Your task to perform on an android device: Open Youtube and go to the subscriptions tab Image 0: 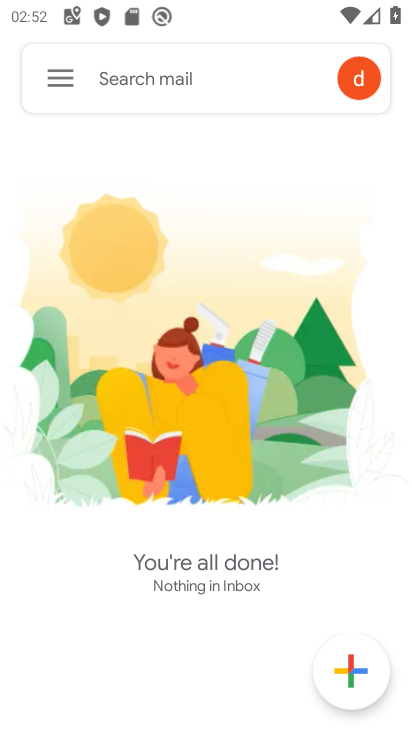
Step 0: press home button
Your task to perform on an android device: Open Youtube and go to the subscriptions tab Image 1: 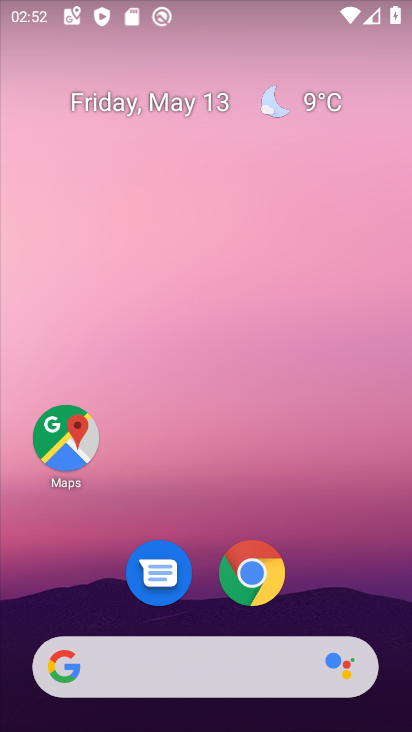
Step 1: drag from (341, 558) to (281, 40)
Your task to perform on an android device: Open Youtube and go to the subscriptions tab Image 2: 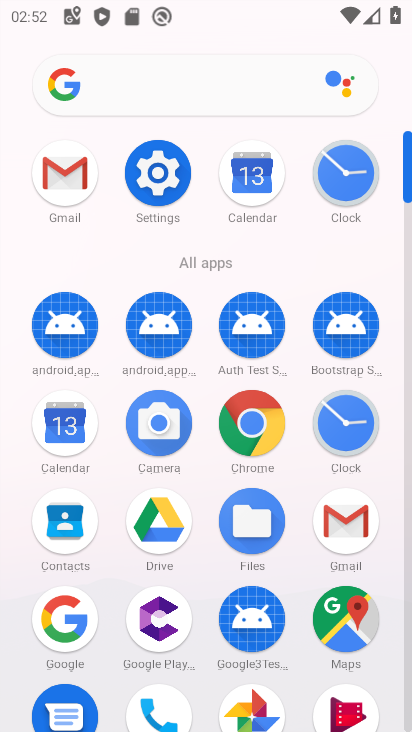
Step 2: drag from (296, 455) to (286, 206)
Your task to perform on an android device: Open Youtube and go to the subscriptions tab Image 3: 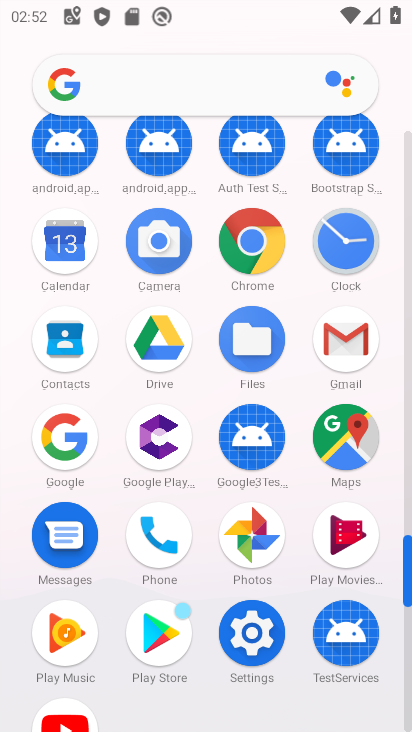
Step 3: drag from (300, 536) to (298, 227)
Your task to perform on an android device: Open Youtube and go to the subscriptions tab Image 4: 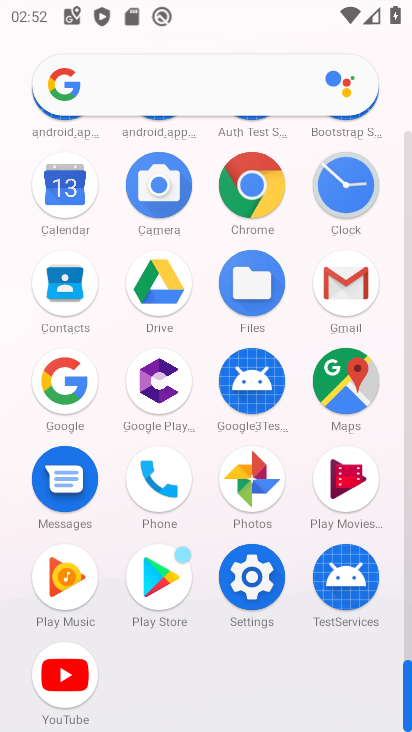
Step 4: click (62, 678)
Your task to perform on an android device: Open Youtube and go to the subscriptions tab Image 5: 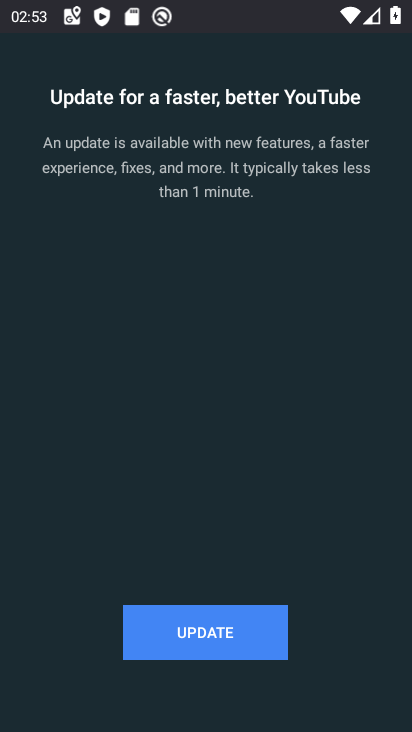
Step 5: click (180, 625)
Your task to perform on an android device: Open Youtube and go to the subscriptions tab Image 6: 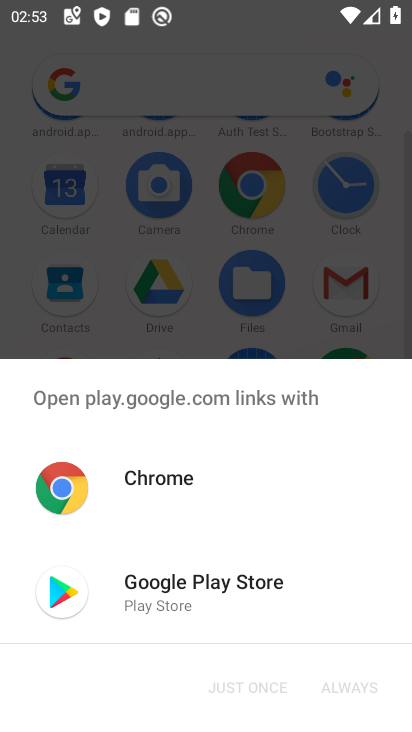
Step 6: click (151, 583)
Your task to perform on an android device: Open Youtube and go to the subscriptions tab Image 7: 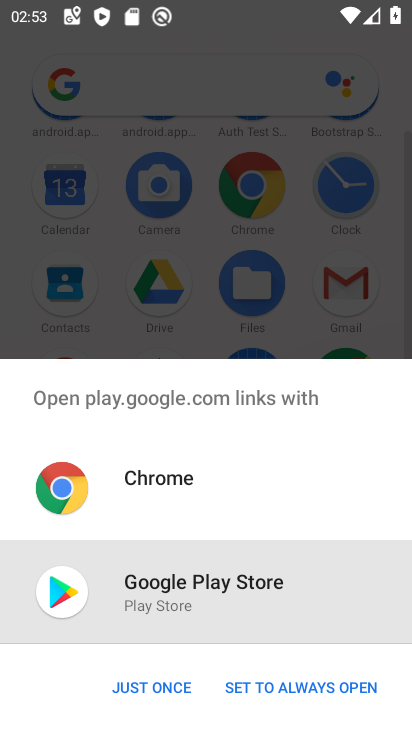
Step 7: click (175, 683)
Your task to perform on an android device: Open Youtube and go to the subscriptions tab Image 8: 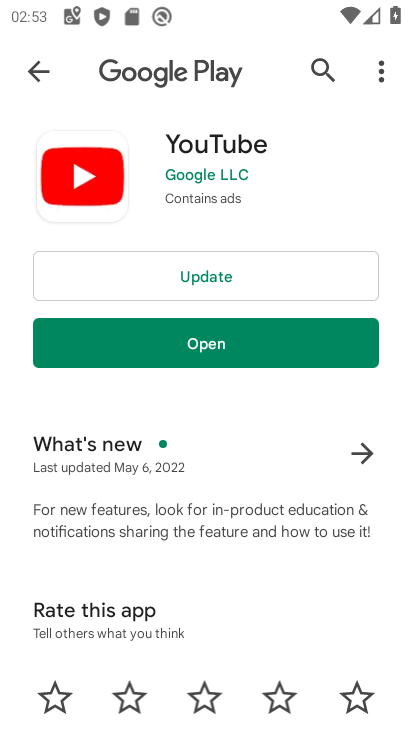
Step 8: click (218, 276)
Your task to perform on an android device: Open Youtube and go to the subscriptions tab Image 9: 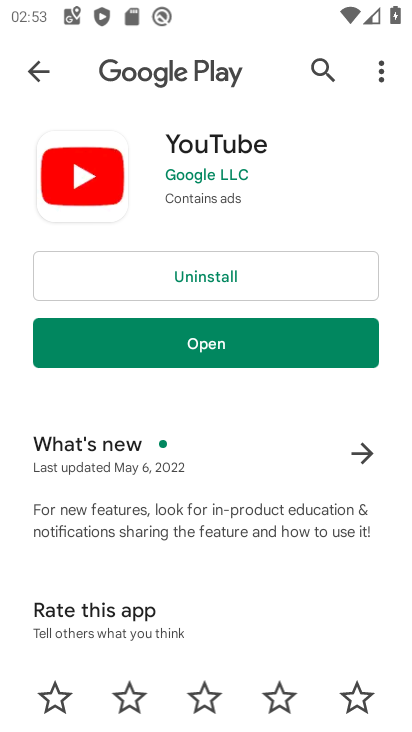
Step 9: click (241, 352)
Your task to perform on an android device: Open Youtube and go to the subscriptions tab Image 10: 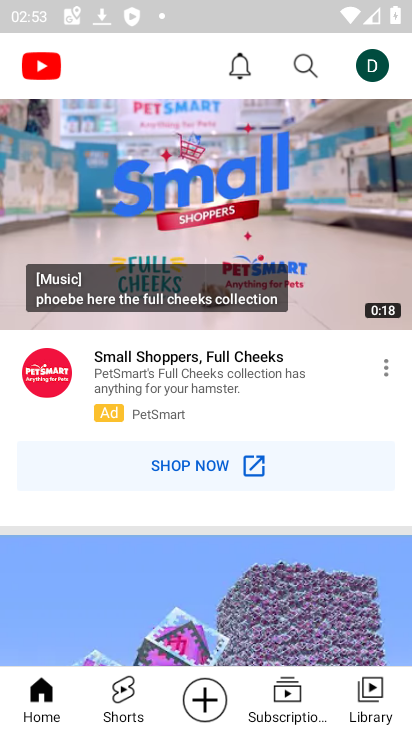
Step 10: click (288, 690)
Your task to perform on an android device: Open Youtube and go to the subscriptions tab Image 11: 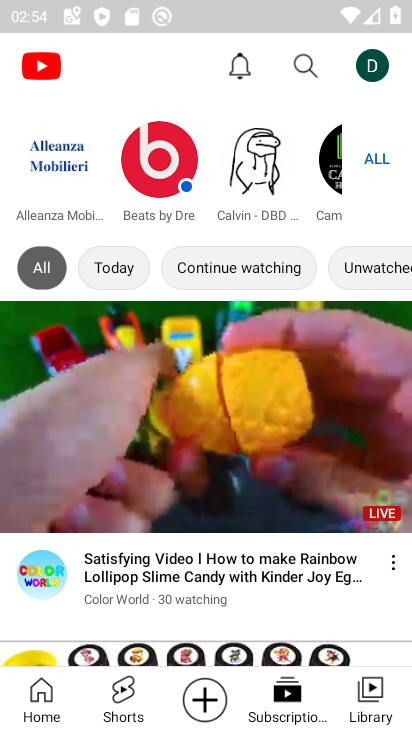
Step 11: task complete